Your task to perform on an android device: Toggle the flashlight Image 0: 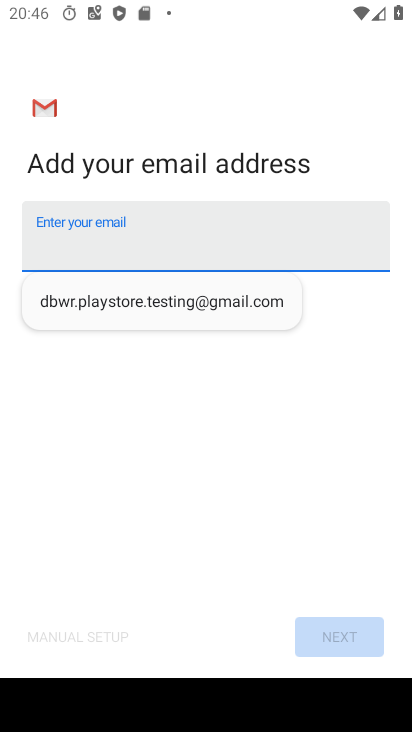
Step 0: press home button
Your task to perform on an android device: Toggle the flashlight Image 1: 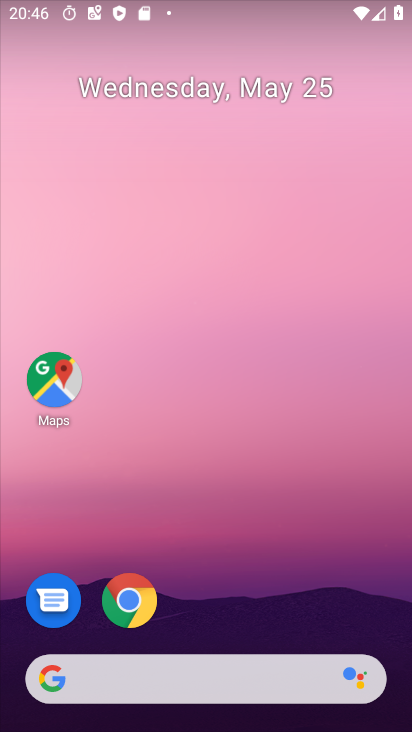
Step 1: drag from (395, 608) to (337, 225)
Your task to perform on an android device: Toggle the flashlight Image 2: 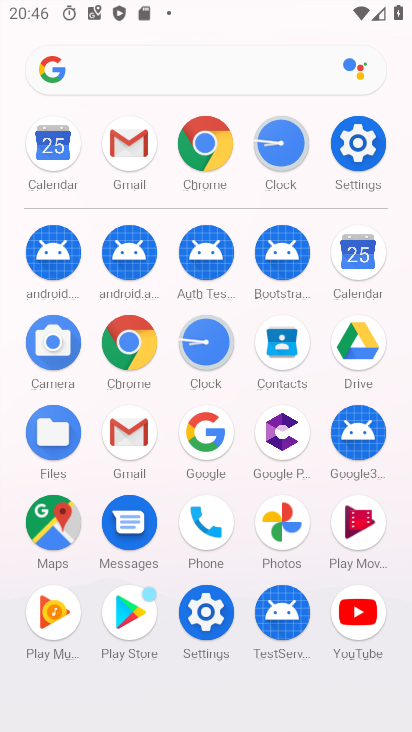
Step 2: click (211, 617)
Your task to perform on an android device: Toggle the flashlight Image 3: 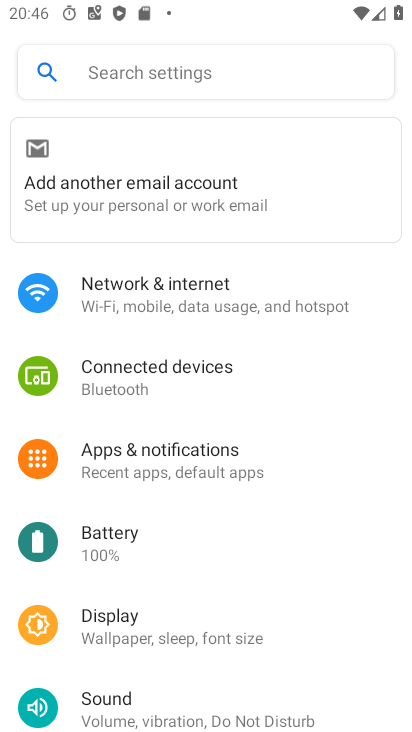
Step 3: click (237, 76)
Your task to perform on an android device: Toggle the flashlight Image 4: 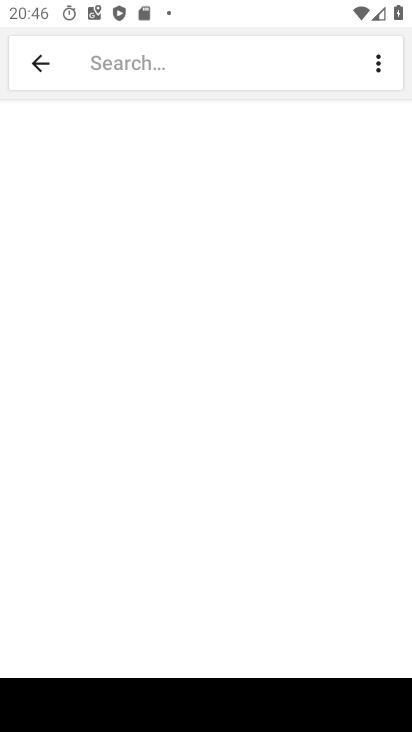
Step 4: type "flashlight"
Your task to perform on an android device: Toggle the flashlight Image 5: 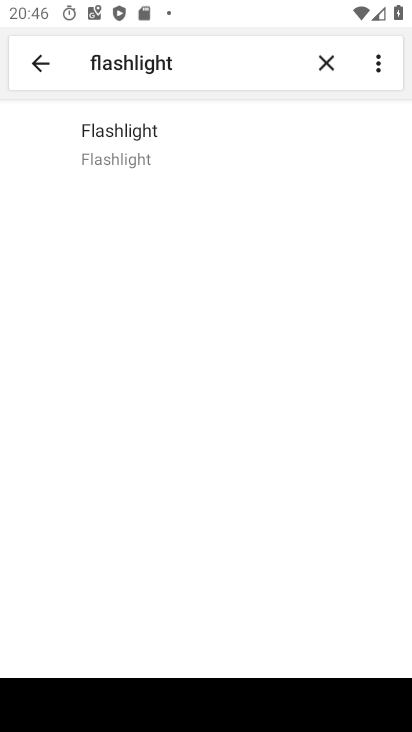
Step 5: click (140, 158)
Your task to perform on an android device: Toggle the flashlight Image 6: 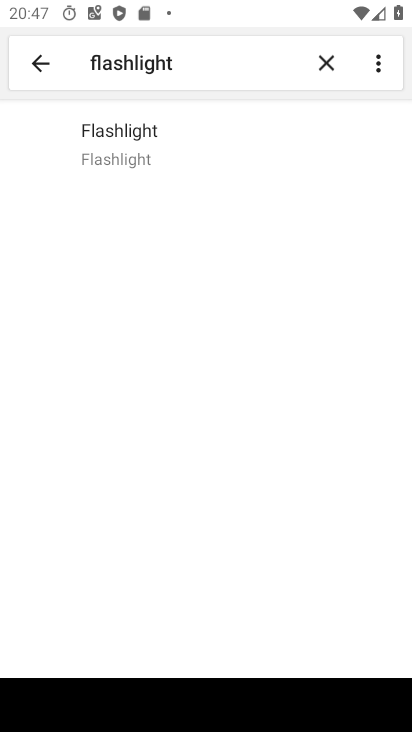
Step 6: click (140, 157)
Your task to perform on an android device: Toggle the flashlight Image 7: 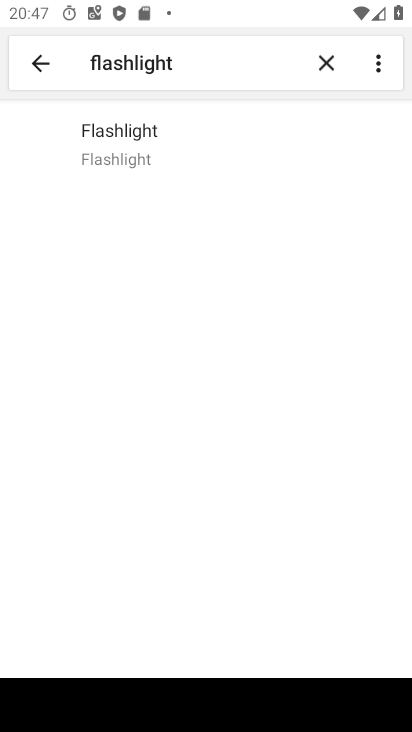
Step 7: task complete